Your task to perform on an android device: Open ESPN.com Image 0: 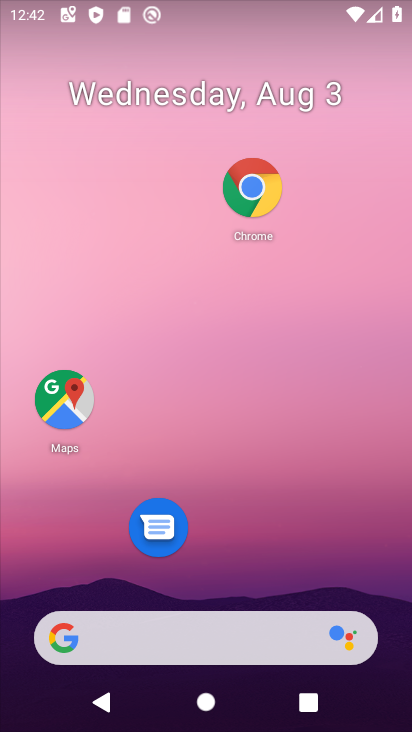
Step 0: click (256, 219)
Your task to perform on an android device: Open ESPN.com Image 1: 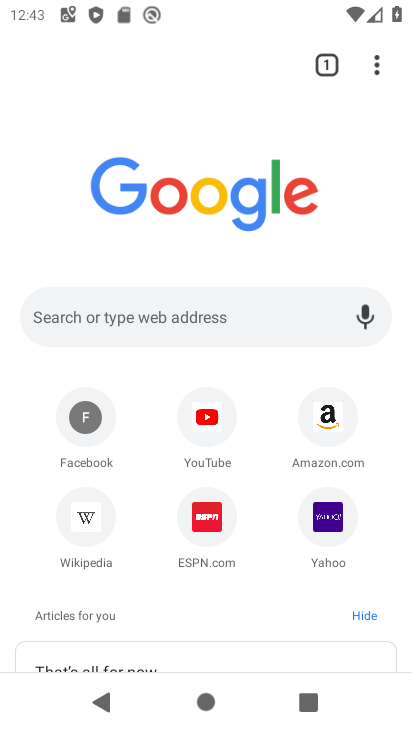
Step 1: click (191, 312)
Your task to perform on an android device: Open ESPN.com Image 2: 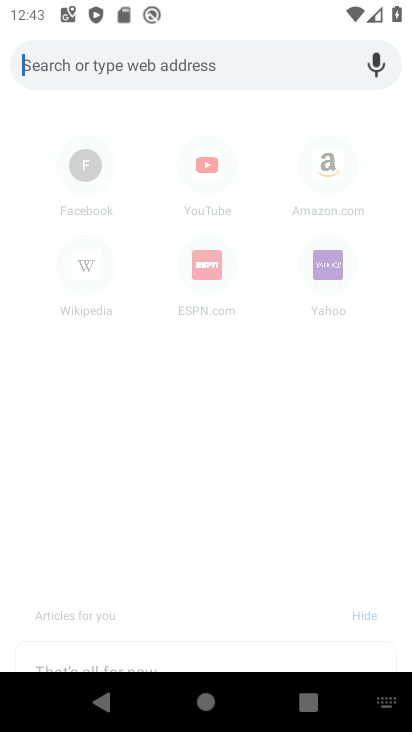
Step 2: type "ESPN.com"
Your task to perform on an android device: Open ESPN.com Image 3: 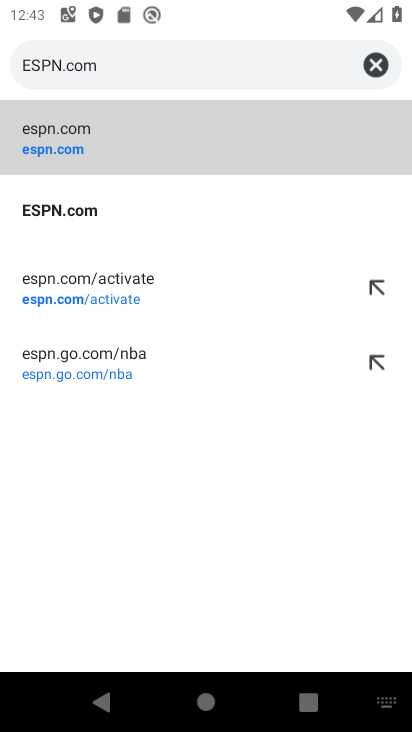
Step 3: click (106, 147)
Your task to perform on an android device: Open ESPN.com Image 4: 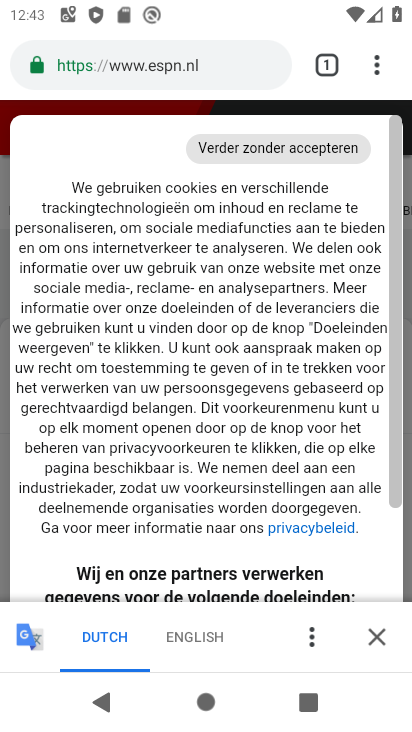
Step 4: task complete